Your task to perform on an android device: turn pop-ups on in chrome Image 0: 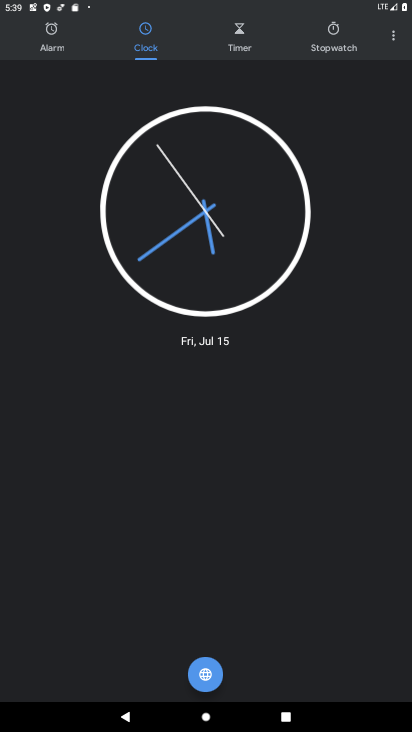
Step 0: press home button
Your task to perform on an android device: turn pop-ups on in chrome Image 1: 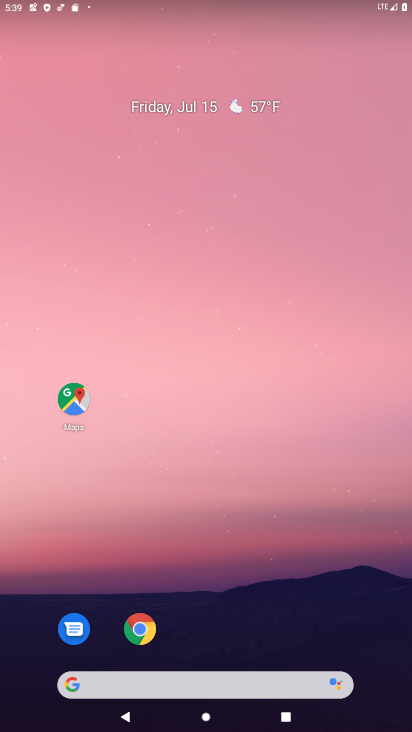
Step 1: drag from (232, 610) to (288, 41)
Your task to perform on an android device: turn pop-ups on in chrome Image 2: 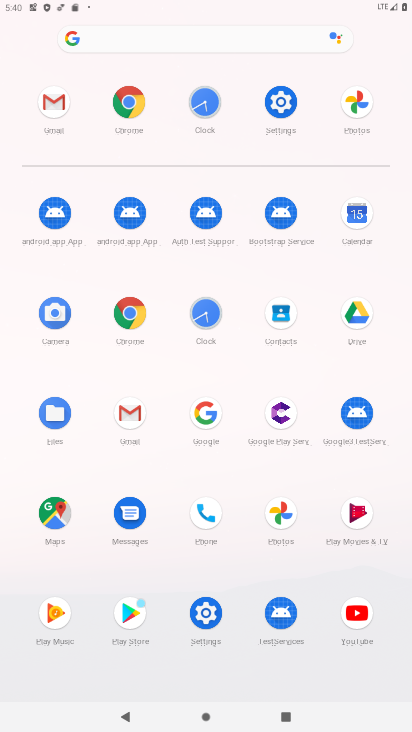
Step 2: click (133, 312)
Your task to perform on an android device: turn pop-ups on in chrome Image 3: 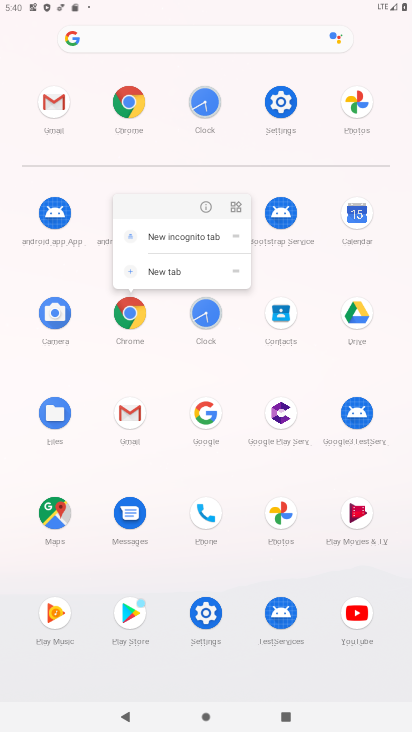
Step 3: click (139, 317)
Your task to perform on an android device: turn pop-ups on in chrome Image 4: 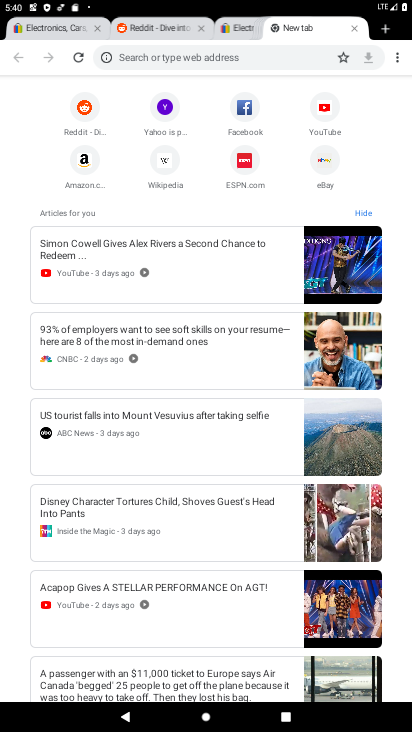
Step 4: drag from (397, 53) to (278, 264)
Your task to perform on an android device: turn pop-ups on in chrome Image 5: 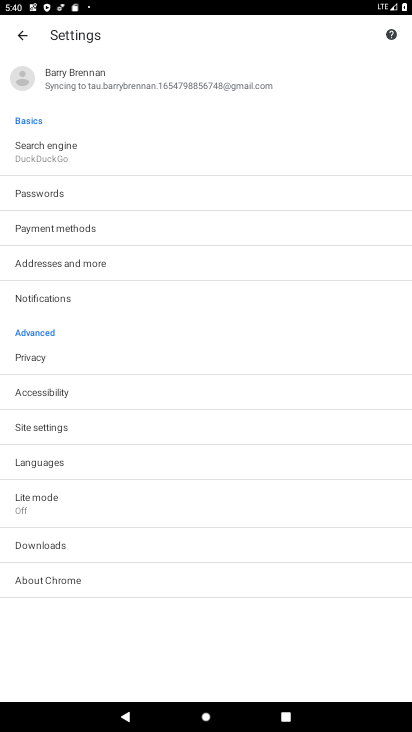
Step 5: click (46, 432)
Your task to perform on an android device: turn pop-ups on in chrome Image 6: 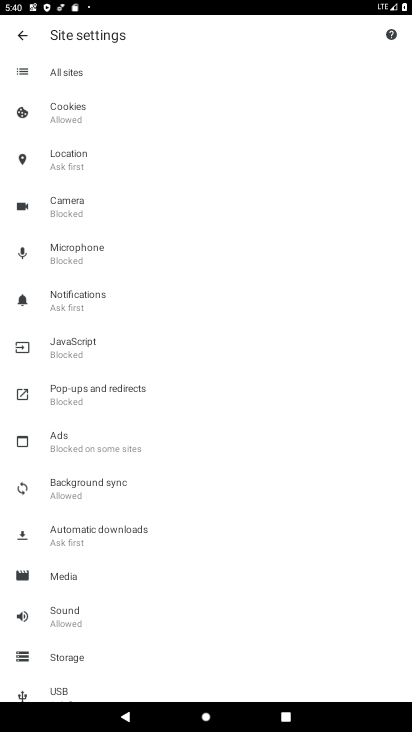
Step 6: click (98, 395)
Your task to perform on an android device: turn pop-ups on in chrome Image 7: 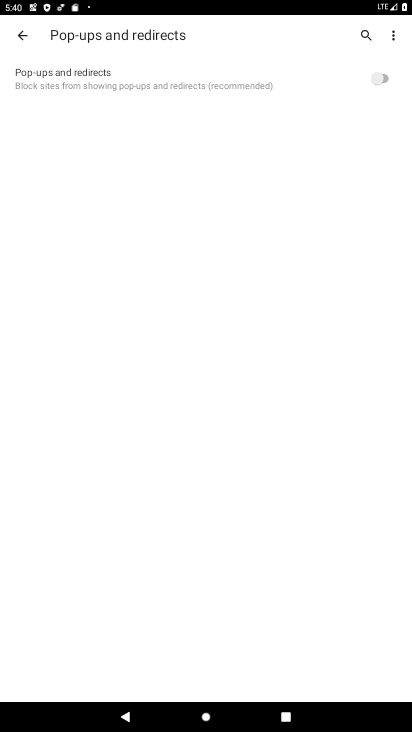
Step 7: click (377, 72)
Your task to perform on an android device: turn pop-ups on in chrome Image 8: 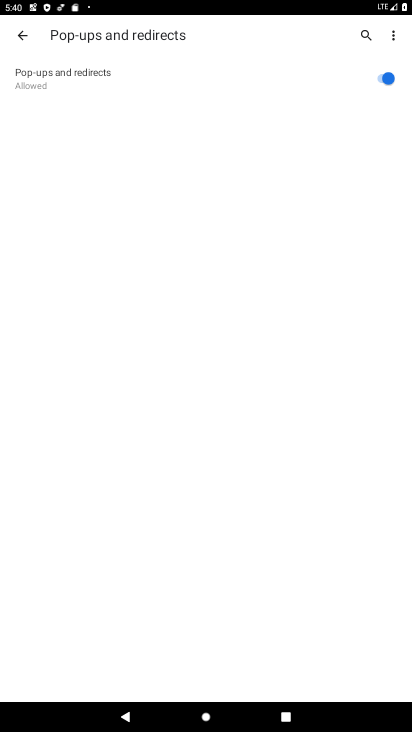
Step 8: task complete